Your task to perform on an android device: turn on improve location accuracy Image 0: 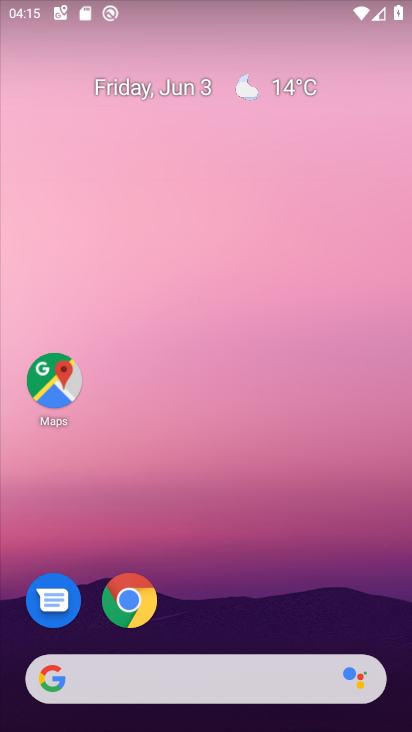
Step 0: drag from (276, 560) to (207, 55)
Your task to perform on an android device: turn on improve location accuracy Image 1: 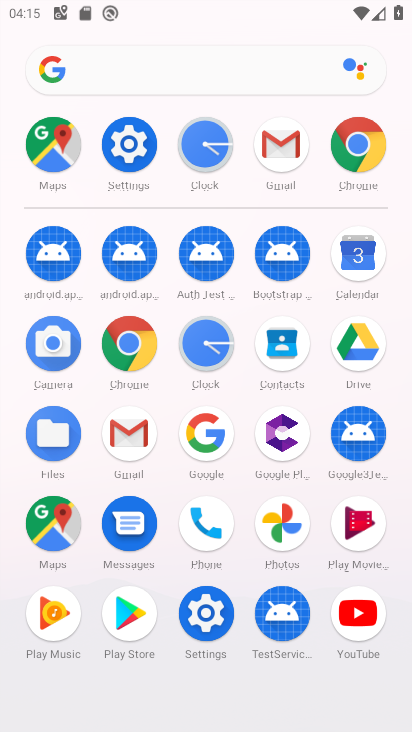
Step 1: click (128, 142)
Your task to perform on an android device: turn on improve location accuracy Image 2: 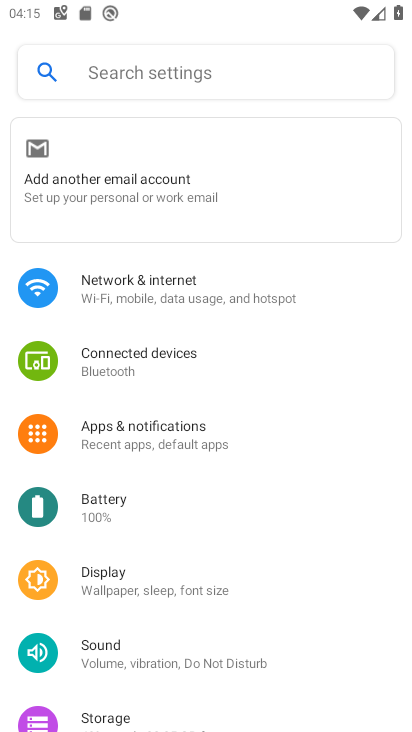
Step 2: drag from (261, 541) to (279, 115)
Your task to perform on an android device: turn on improve location accuracy Image 3: 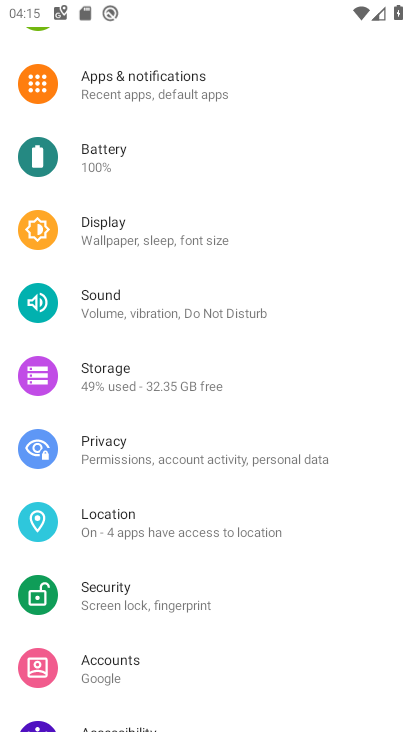
Step 3: click (167, 534)
Your task to perform on an android device: turn on improve location accuracy Image 4: 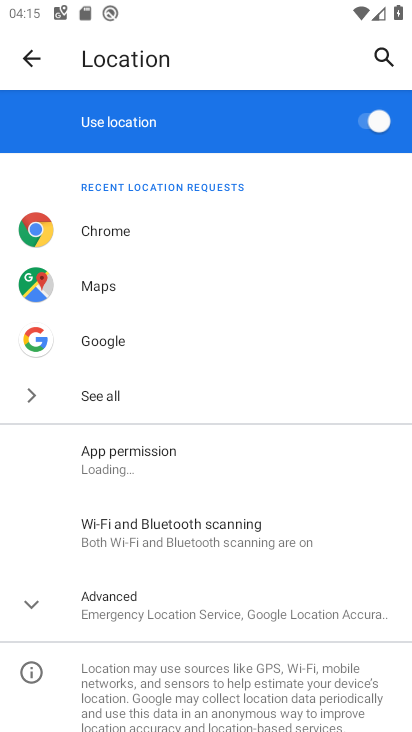
Step 4: click (182, 614)
Your task to perform on an android device: turn on improve location accuracy Image 5: 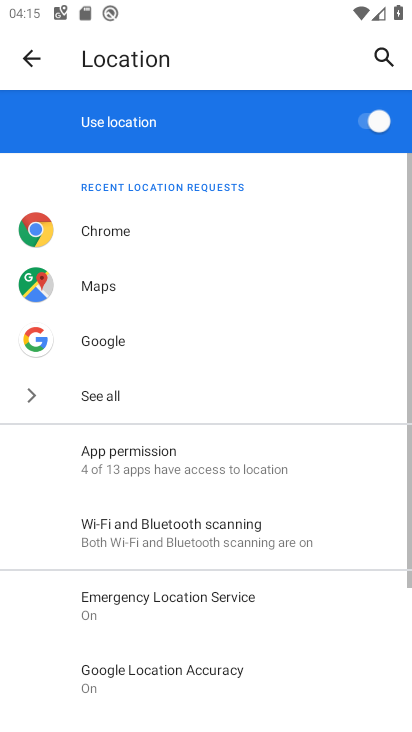
Step 5: drag from (321, 632) to (349, 219)
Your task to perform on an android device: turn on improve location accuracy Image 6: 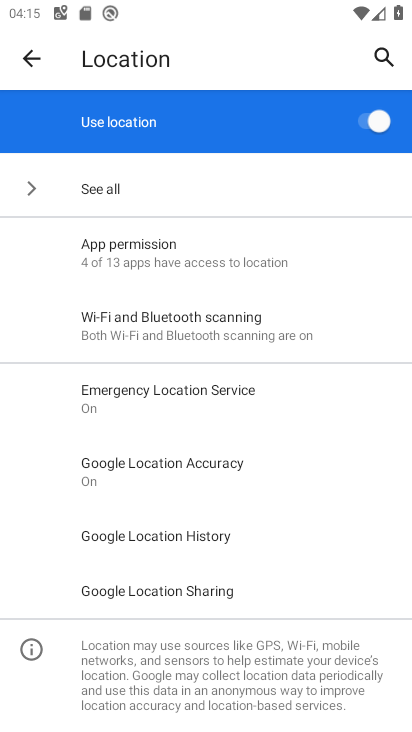
Step 6: click (171, 480)
Your task to perform on an android device: turn on improve location accuracy Image 7: 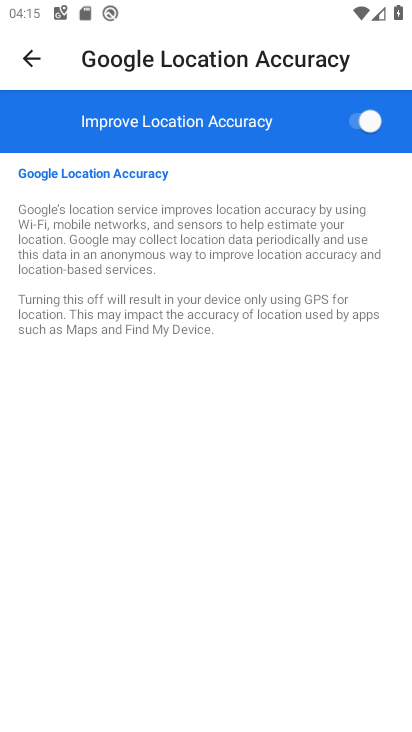
Step 7: task complete